Your task to perform on an android device: Go to notification settings Image 0: 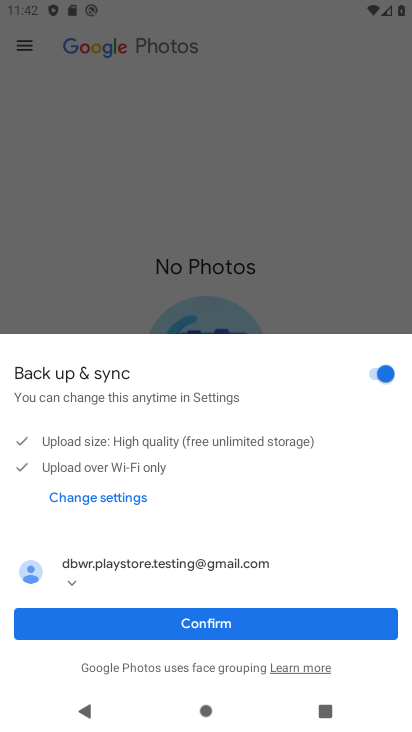
Step 0: press home button
Your task to perform on an android device: Go to notification settings Image 1: 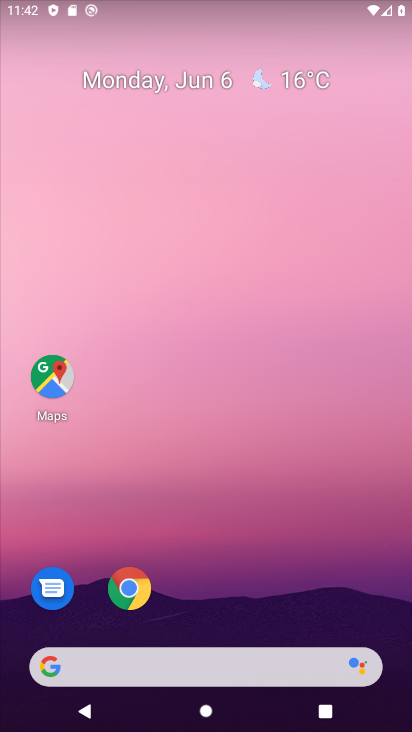
Step 1: drag from (173, 698) to (176, 0)
Your task to perform on an android device: Go to notification settings Image 2: 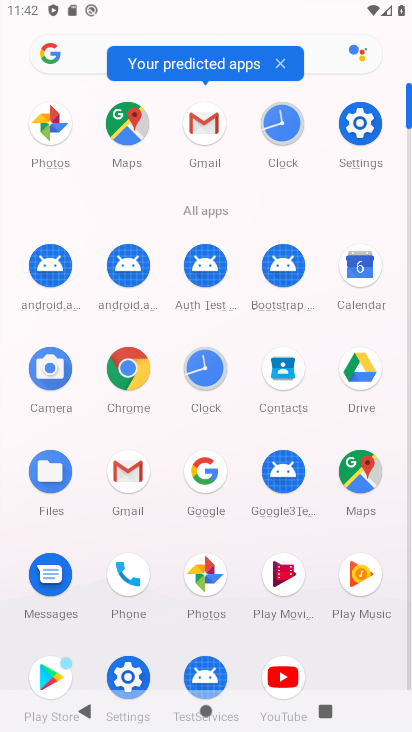
Step 2: click (368, 134)
Your task to perform on an android device: Go to notification settings Image 3: 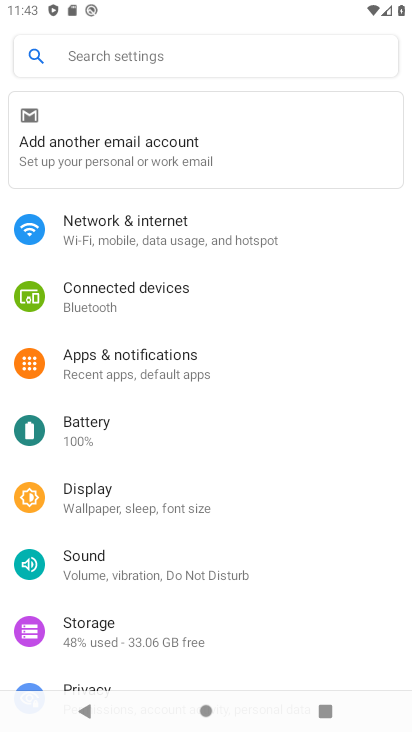
Step 3: click (174, 375)
Your task to perform on an android device: Go to notification settings Image 4: 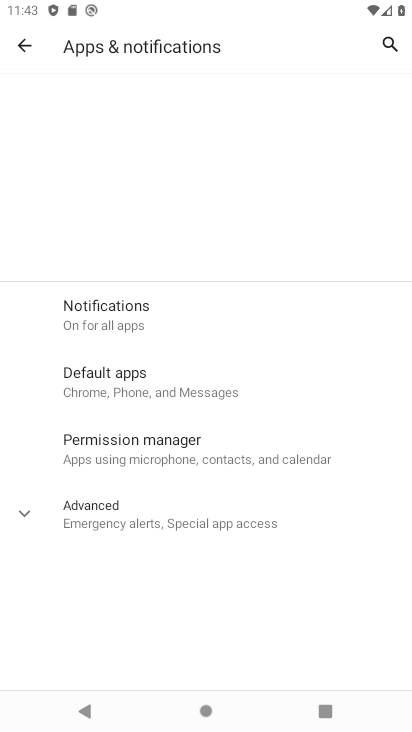
Step 4: task complete